Your task to perform on an android device: Go to display settings Image 0: 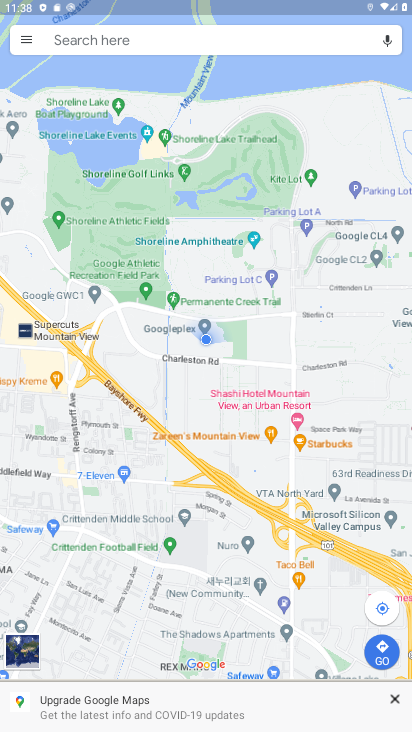
Step 0: press home button
Your task to perform on an android device: Go to display settings Image 1: 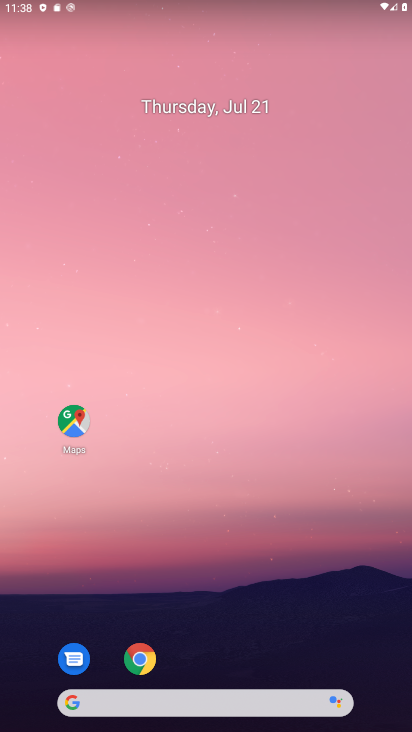
Step 1: drag from (243, 667) to (220, 320)
Your task to perform on an android device: Go to display settings Image 2: 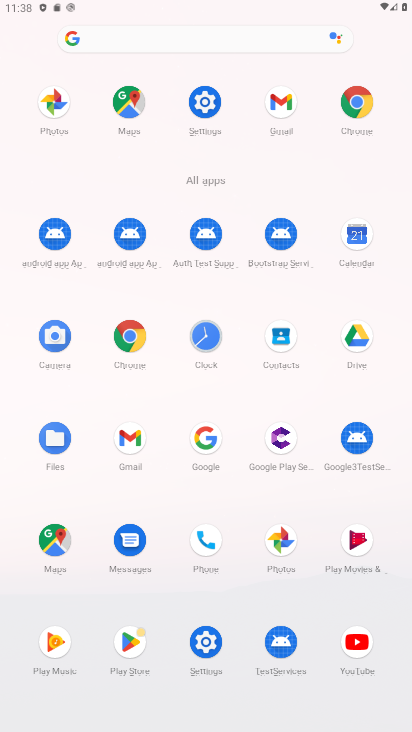
Step 2: click (203, 91)
Your task to perform on an android device: Go to display settings Image 3: 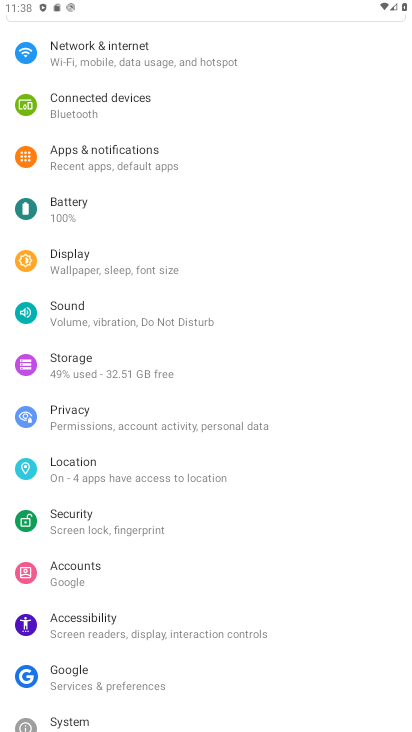
Step 3: click (136, 266)
Your task to perform on an android device: Go to display settings Image 4: 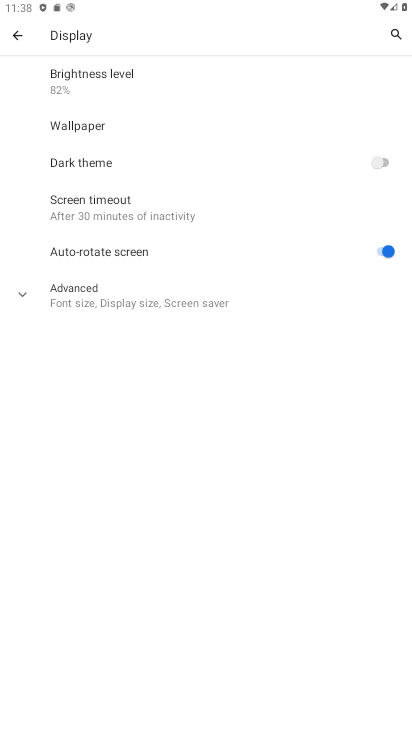
Step 4: task complete